Your task to perform on an android device: turn notification dots on Image 0: 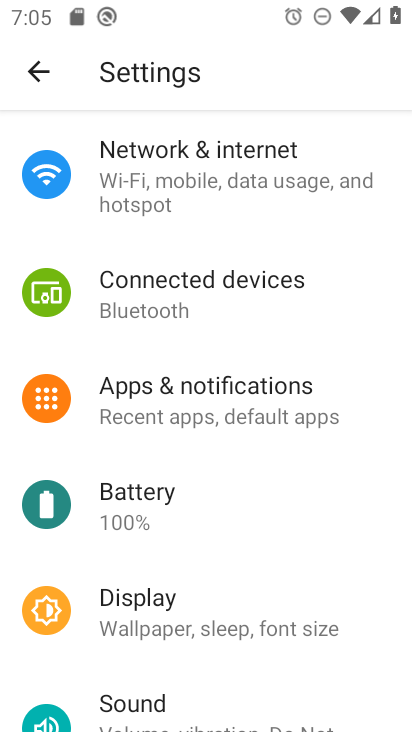
Step 0: press home button
Your task to perform on an android device: turn notification dots on Image 1: 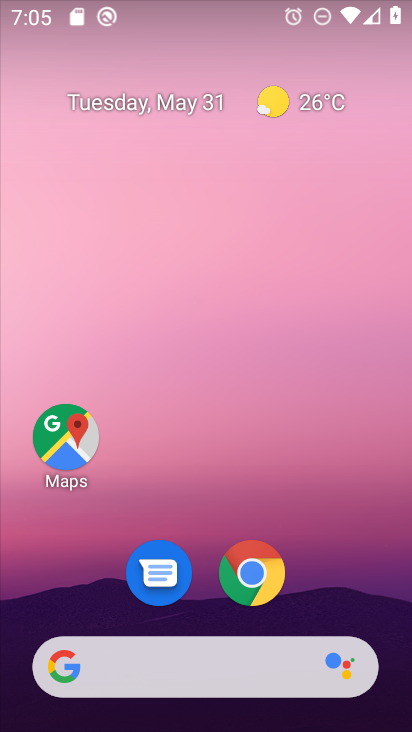
Step 1: drag from (399, 615) to (283, 98)
Your task to perform on an android device: turn notification dots on Image 2: 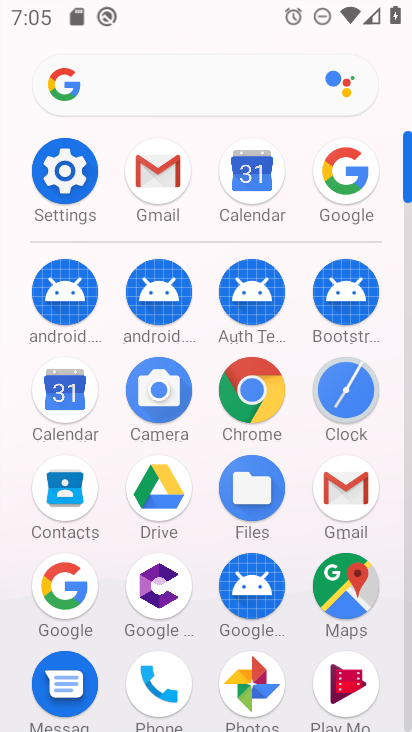
Step 2: click (84, 170)
Your task to perform on an android device: turn notification dots on Image 3: 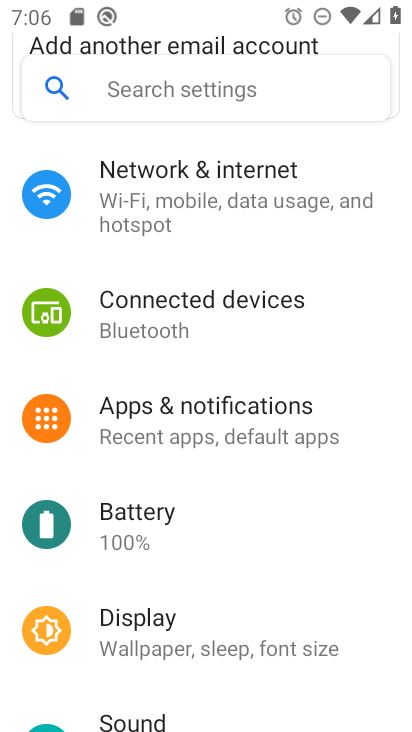
Step 3: click (310, 459)
Your task to perform on an android device: turn notification dots on Image 4: 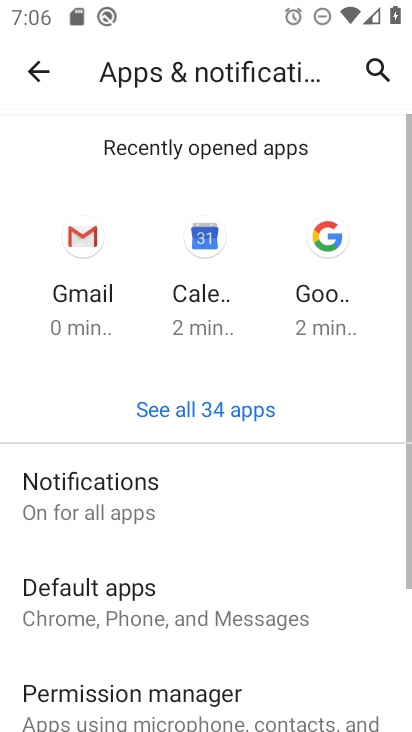
Step 4: click (176, 506)
Your task to perform on an android device: turn notification dots on Image 5: 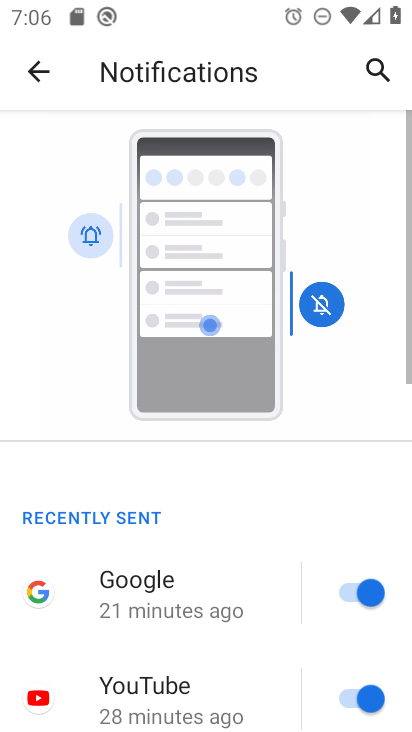
Step 5: drag from (249, 653) to (176, 40)
Your task to perform on an android device: turn notification dots on Image 6: 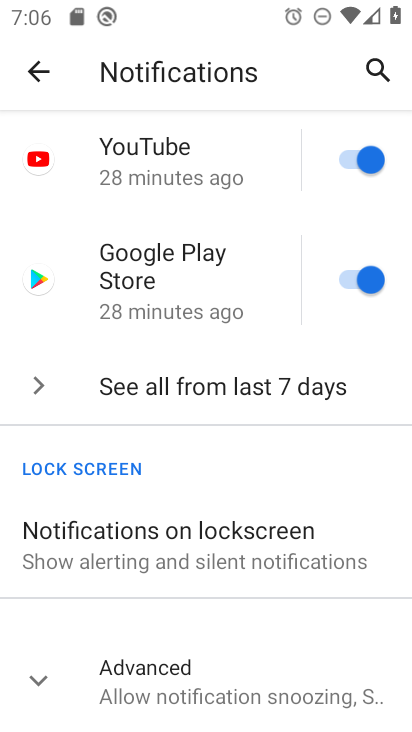
Step 6: click (167, 672)
Your task to perform on an android device: turn notification dots on Image 7: 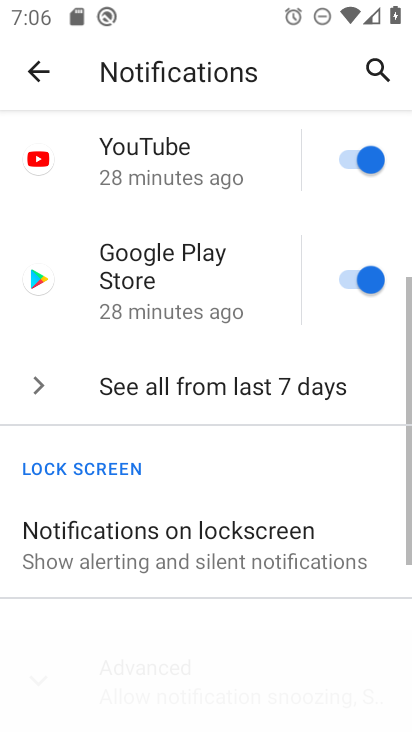
Step 7: task complete